Your task to perform on an android device: open app "Facebook Lite" Image 0: 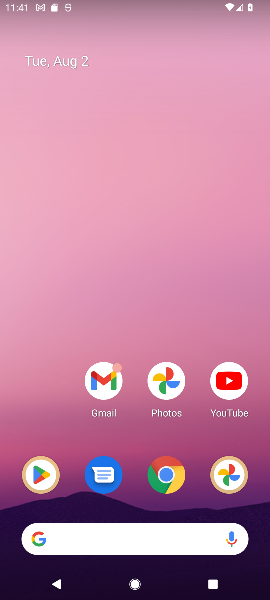
Step 0: click (36, 476)
Your task to perform on an android device: open app "Facebook Lite" Image 1: 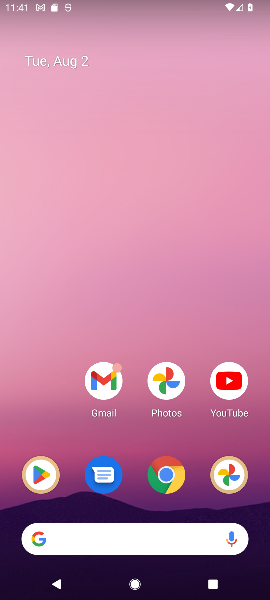
Step 1: click (51, 472)
Your task to perform on an android device: open app "Facebook Lite" Image 2: 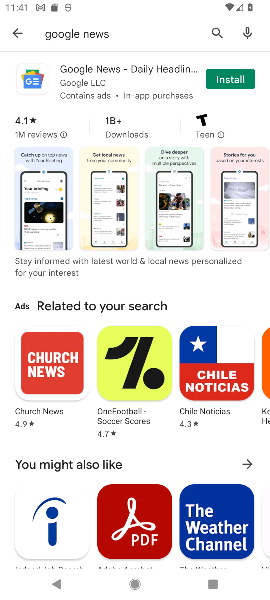
Step 2: click (214, 32)
Your task to perform on an android device: open app "Facebook Lite" Image 3: 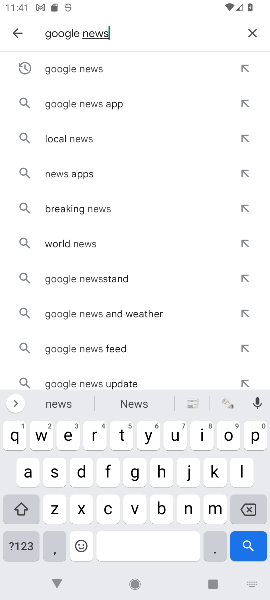
Step 3: click (250, 33)
Your task to perform on an android device: open app "Facebook Lite" Image 4: 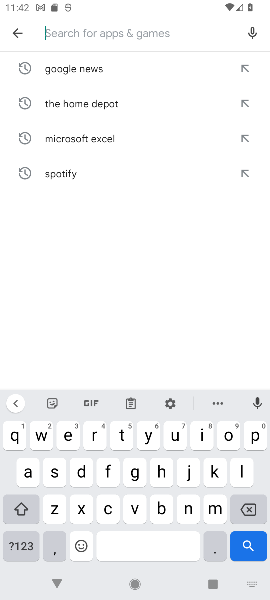
Step 4: type "Facebook Lite"
Your task to perform on an android device: open app "Facebook Lite" Image 5: 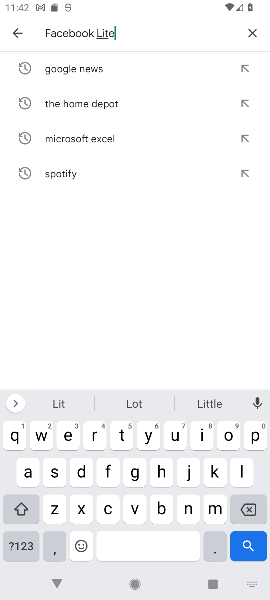
Step 5: type ""
Your task to perform on an android device: open app "Facebook Lite" Image 6: 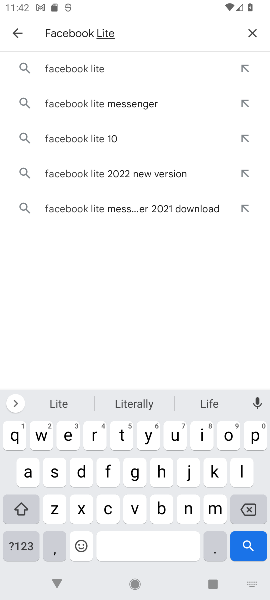
Step 6: click (127, 67)
Your task to perform on an android device: open app "Facebook Lite" Image 7: 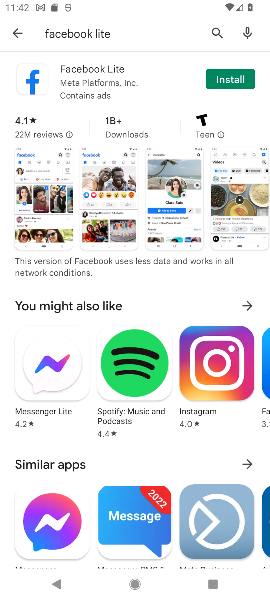
Step 7: task complete